Your task to perform on an android device: turn pop-ups on in chrome Image 0: 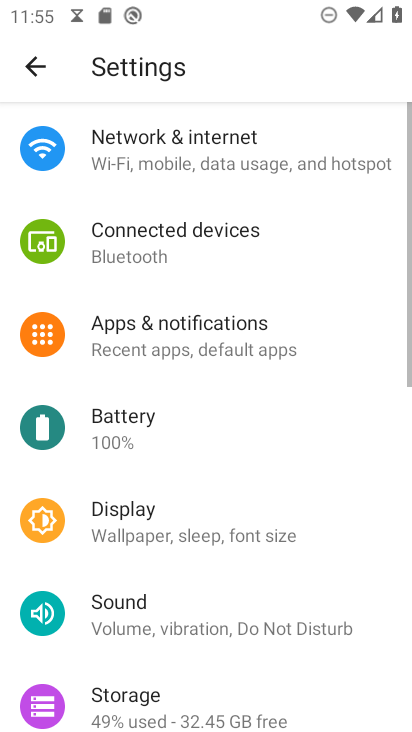
Step 0: press home button
Your task to perform on an android device: turn pop-ups on in chrome Image 1: 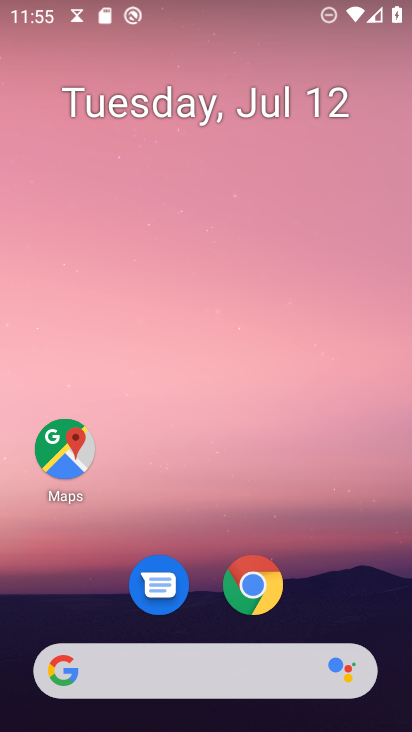
Step 1: click (263, 580)
Your task to perform on an android device: turn pop-ups on in chrome Image 2: 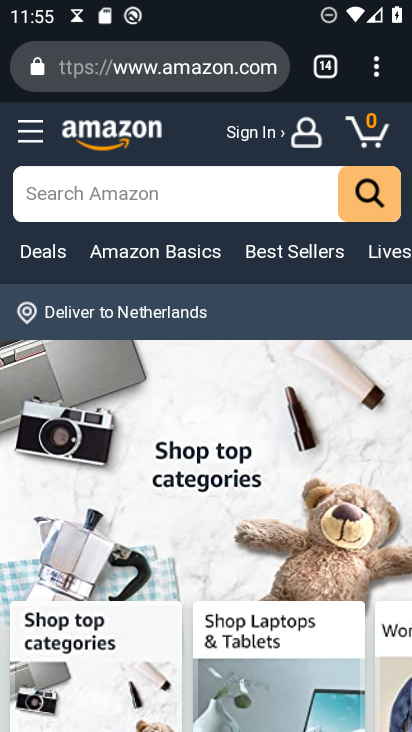
Step 2: drag from (381, 69) to (191, 585)
Your task to perform on an android device: turn pop-ups on in chrome Image 3: 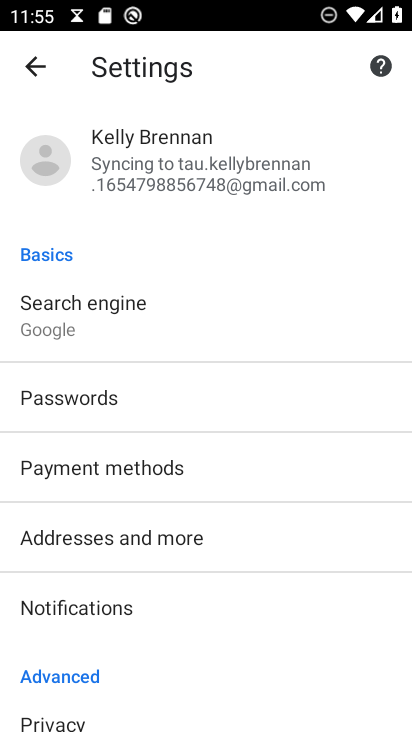
Step 3: drag from (182, 611) to (237, 273)
Your task to perform on an android device: turn pop-ups on in chrome Image 4: 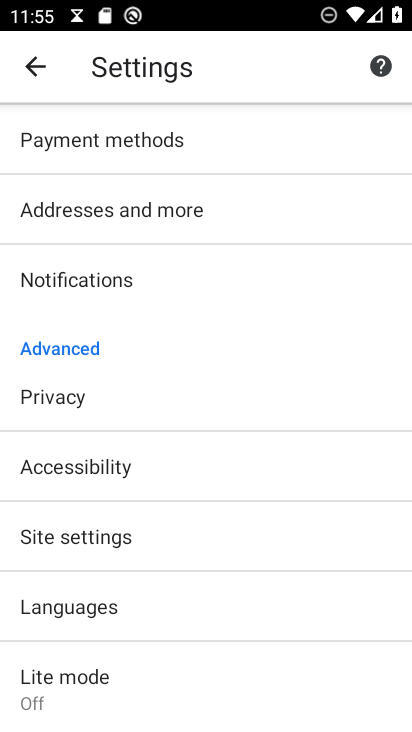
Step 4: click (107, 538)
Your task to perform on an android device: turn pop-ups on in chrome Image 5: 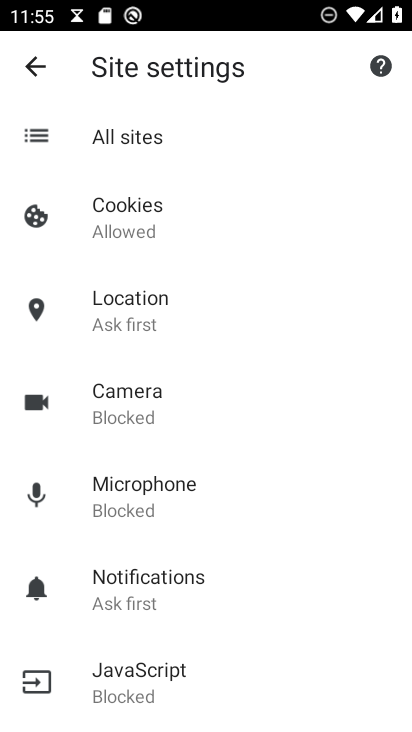
Step 5: drag from (215, 661) to (301, 239)
Your task to perform on an android device: turn pop-ups on in chrome Image 6: 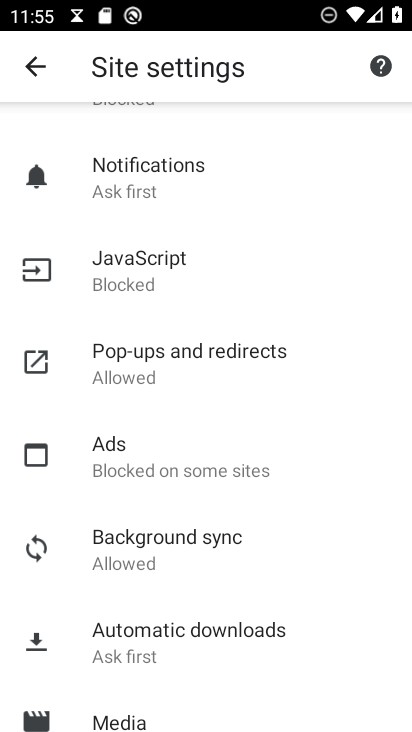
Step 6: click (176, 346)
Your task to perform on an android device: turn pop-ups on in chrome Image 7: 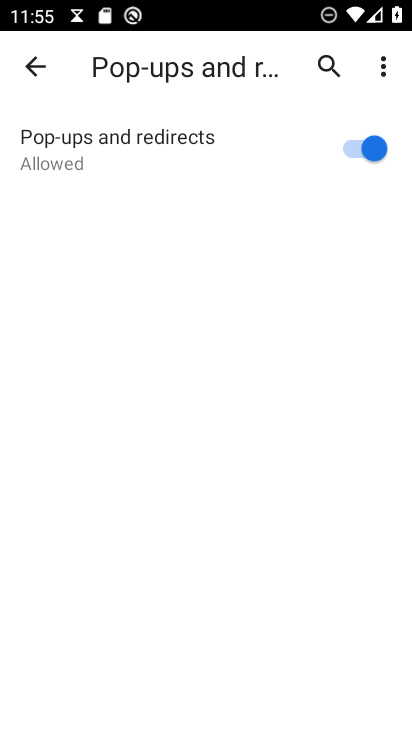
Step 7: task complete